Your task to perform on an android device: Go to internet settings Image 0: 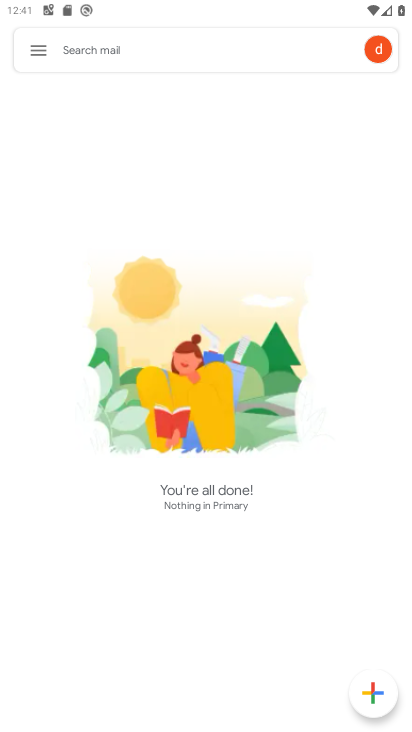
Step 0: press home button
Your task to perform on an android device: Go to internet settings Image 1: 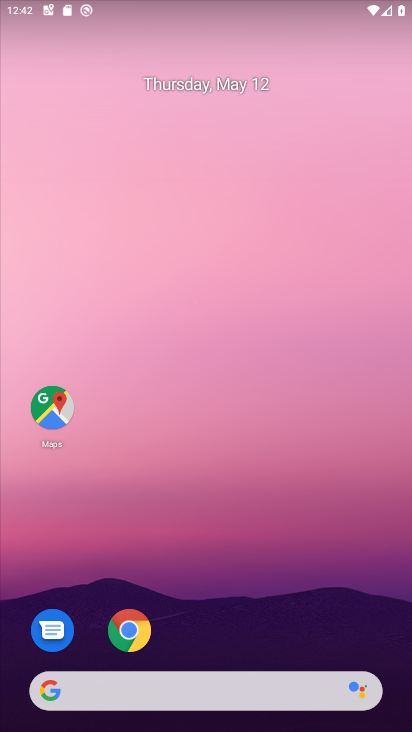
Step 1: drag from (259, 616) to (219, 60)
Your task to perform on an android device: Go to internet settings Image 2: 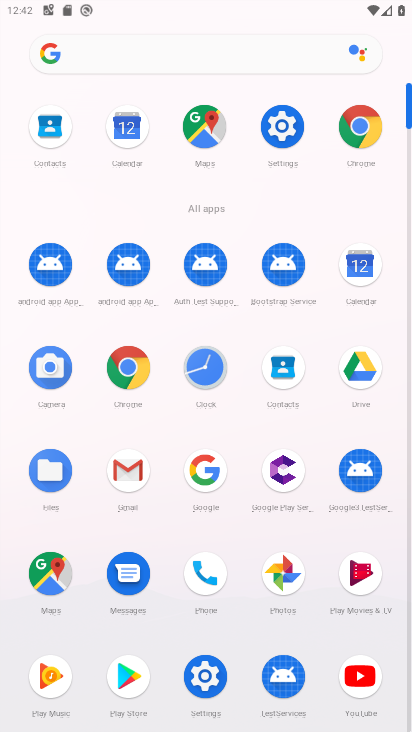
Step 2: click (276, 121)
Your task to perform on an android device: Go to internet settings Image 3: 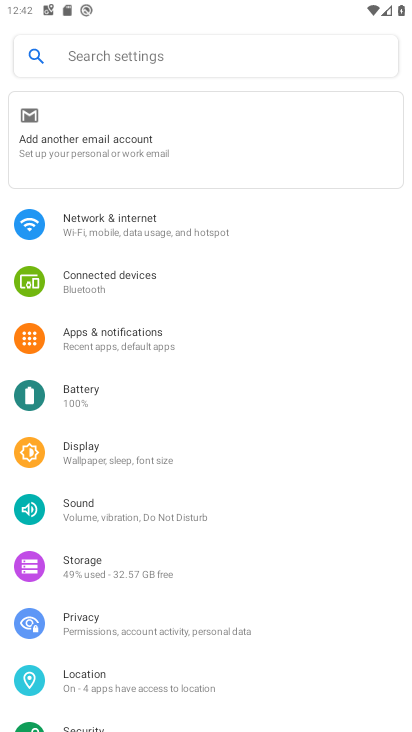
Step 3: click (141, 224)
Your task to perform on an android device: Go to internet settings Image 4: 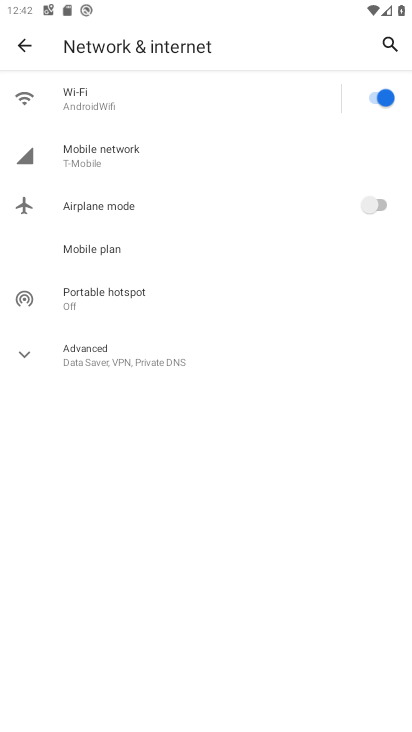
Step 4: task complete